Your task to perform on an android device: set an alarm Image 0: 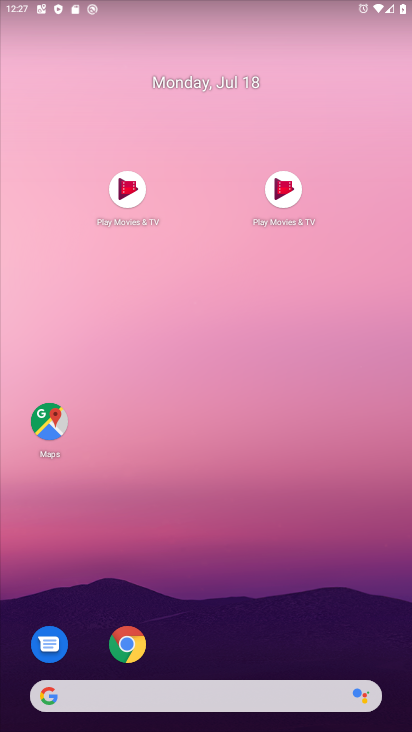
Step 0: drag from (309, 610) to (354, 107)
Your task to perform on an android device: set an alarm Image 1: 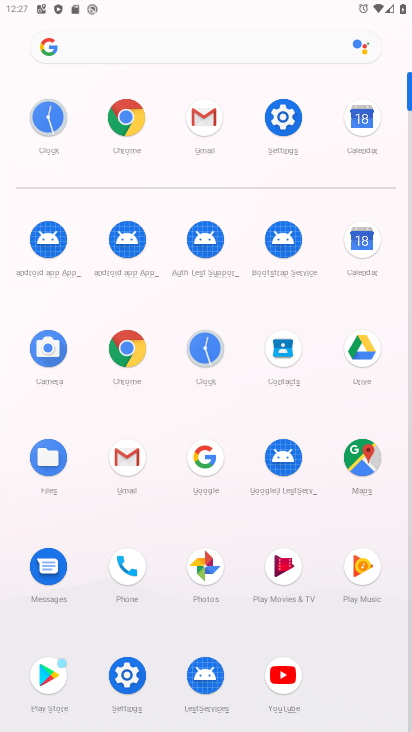
Step 1: click (52, 116)
Your task to perform on an android device: set an alarm Image 2: 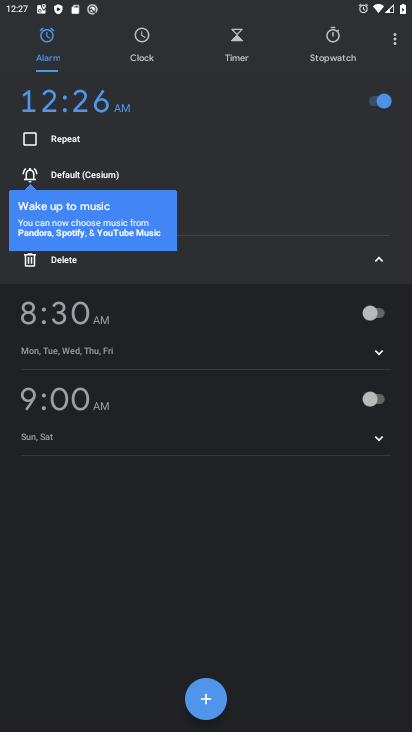
Step 2: click (219, 696)
Your task to perform on an android device: set an alarm Image 3: 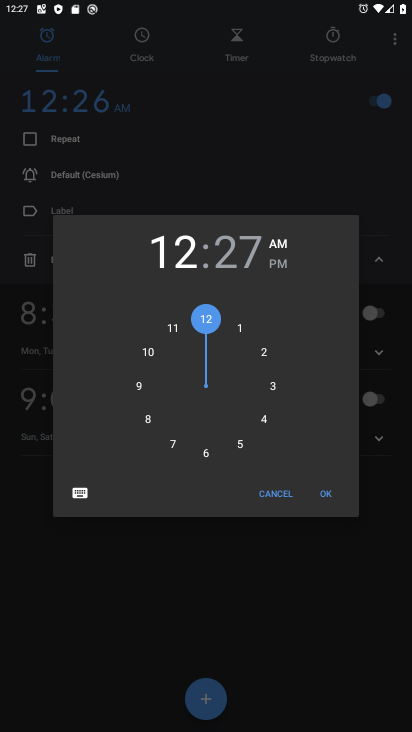
Step 3: click (322, 493)
Your task to perform on an android device: set an alarm Image 4: 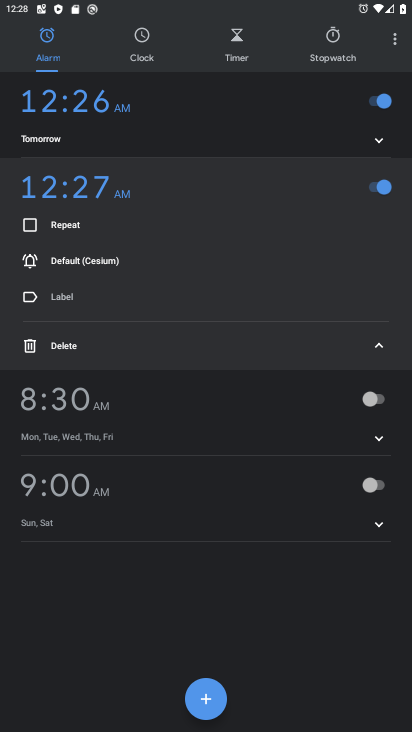
Step 4: task complete